Your task to perform on an android device: add a label to a message in the gmail app Image 0: 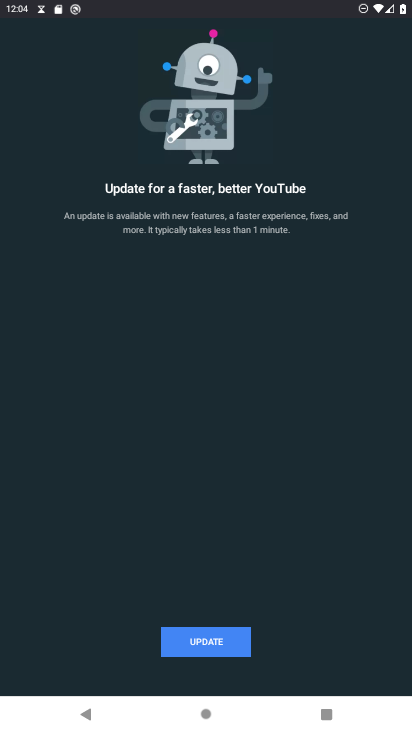
Step 0: press back button
Your task to perform on an android device: add a label to a message in the gmail app Image 1: 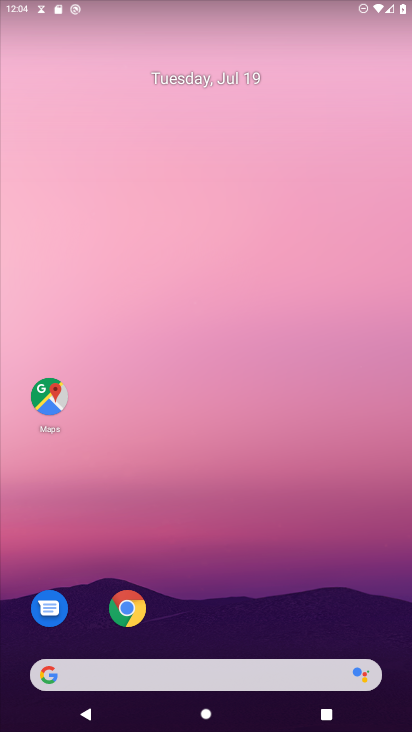
Step 1: drag from (268, 642) to (265, 0)
Your task to perform on an android device: add a label to a message in the gmail app Image 2: 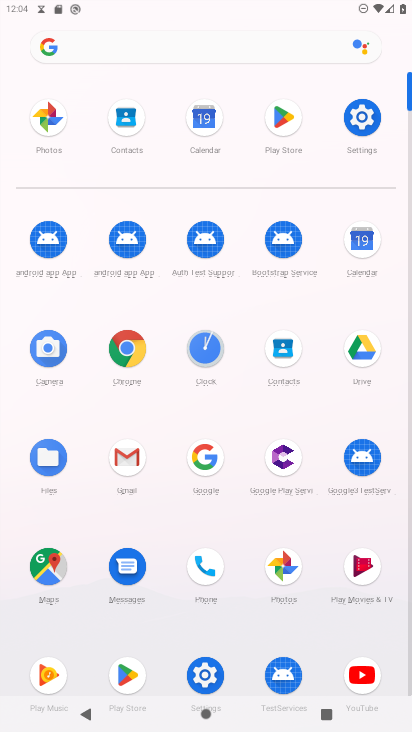
Step 2: click (124, 461)
Your task to perform on an android device: add a label to a message in the gmail app Image 3: 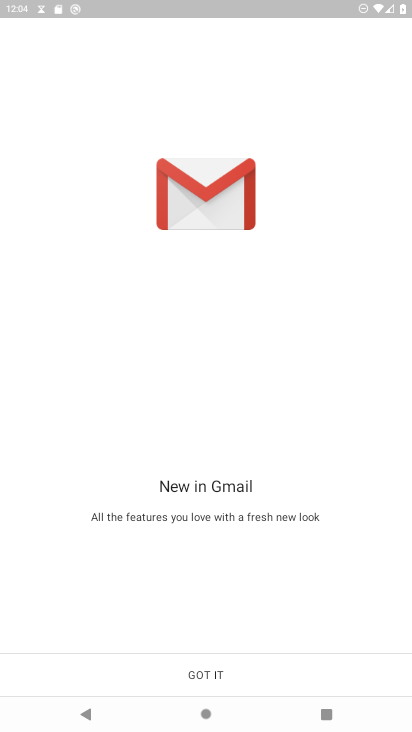
Step 3: click (249, 677)
Your task to perform on an android device: add a label to a message in the gmail app Image 4: 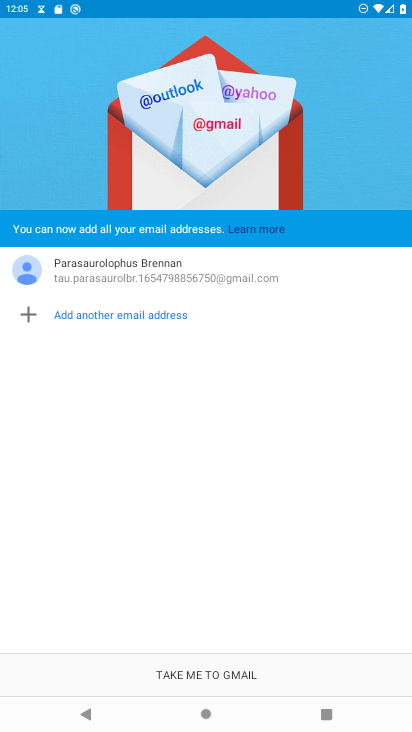
Step 4: click (249, 677)
Your task to perform on an android device: add a label to a message in the gmail app Image 5: 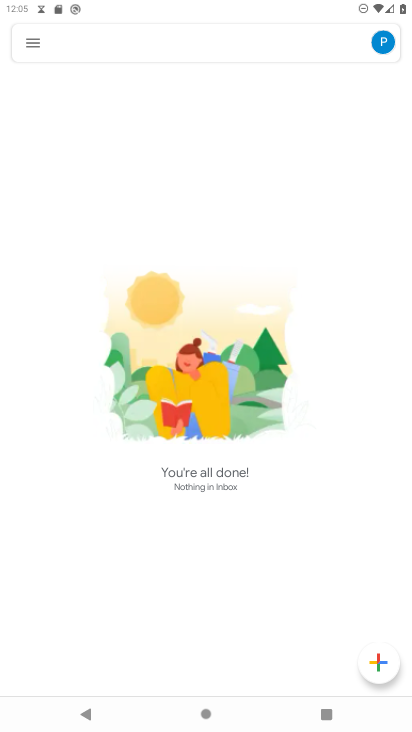
Step 5: task complete